Your task to perform on an android device: Do I have any events today? Image 0: 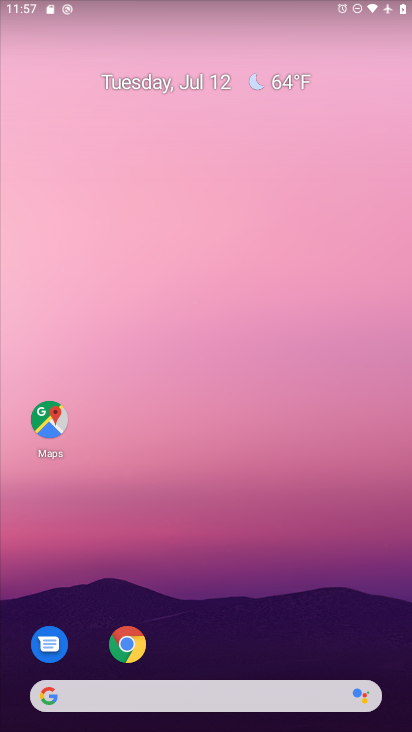
Step 0: drag from (274, 613) to (260, 171)
Your task to perform on an android device: Do I have any events today? Image 1: 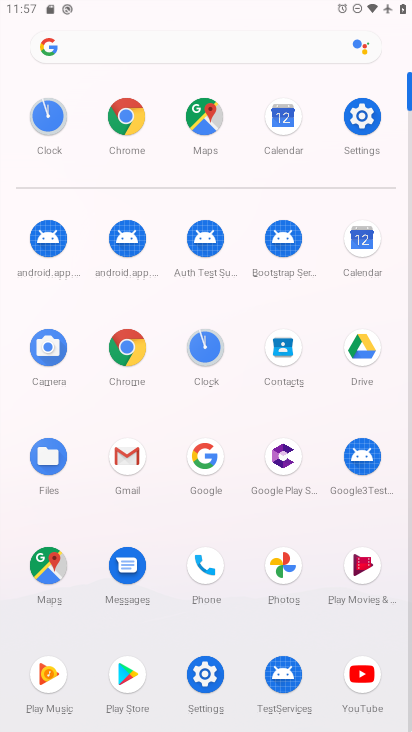
Step 1: click (273, 120)
Your task to perform on an android device: Do I have any events today? Image 2: 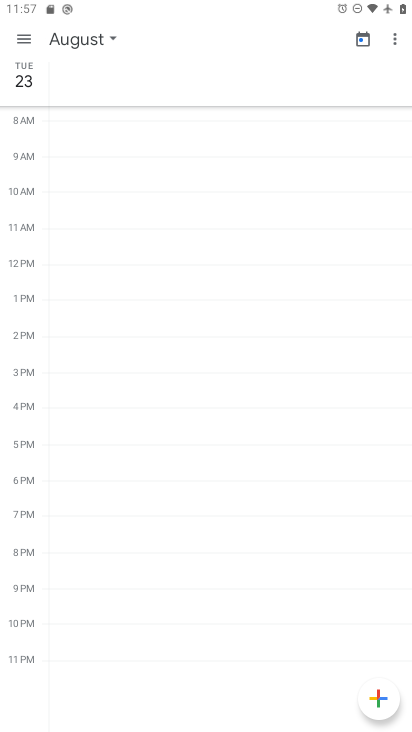
Step 2: task complete